Your task to perform on an android device: add a label to a message in the gmail app Image 0: 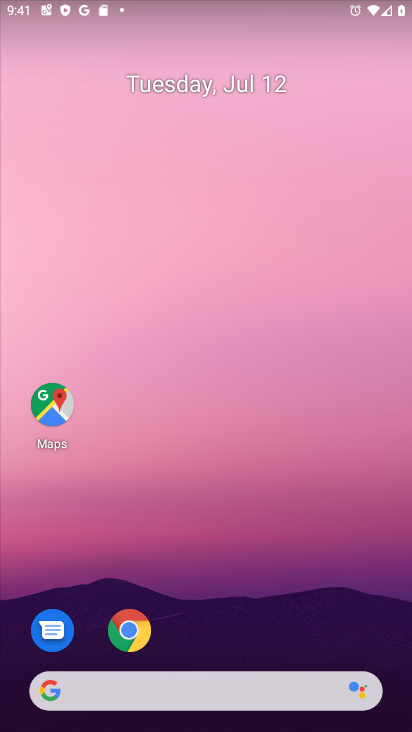
Step 0: click (399, 571)
Your task to perform on an android device: add a label to a message in the gmail app Image 1: 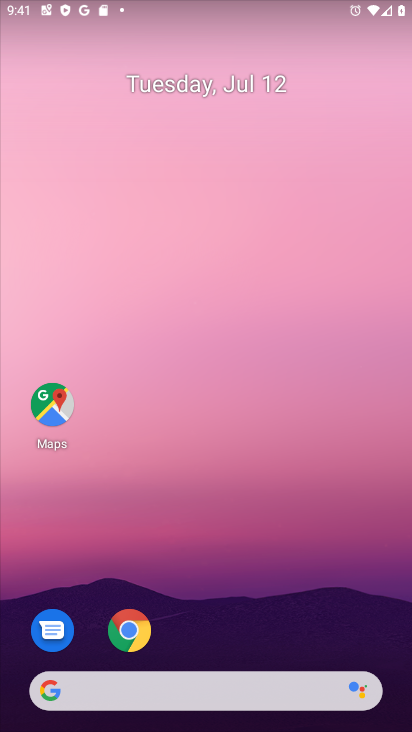
Step 1: drag from (202, 641) to (200, 170)
Your task to perform on an android device: add a label to a message in the gmail app Image 2: 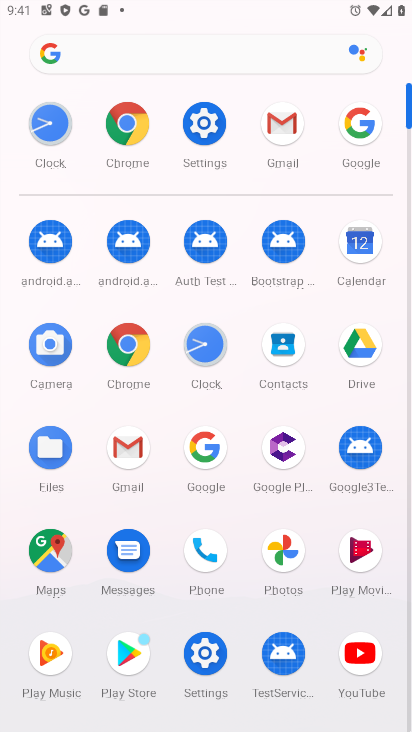
Step 2: click (281, 116)
Your task to perform on an android device: add a label to a message in the gmail app Image 3: 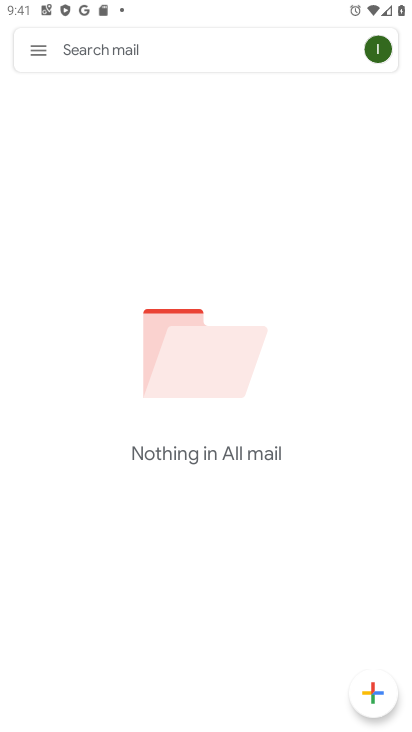
Step 3: task complete